Your task to perform on an android device: Search for sushi restaurants on Maps Image 0: 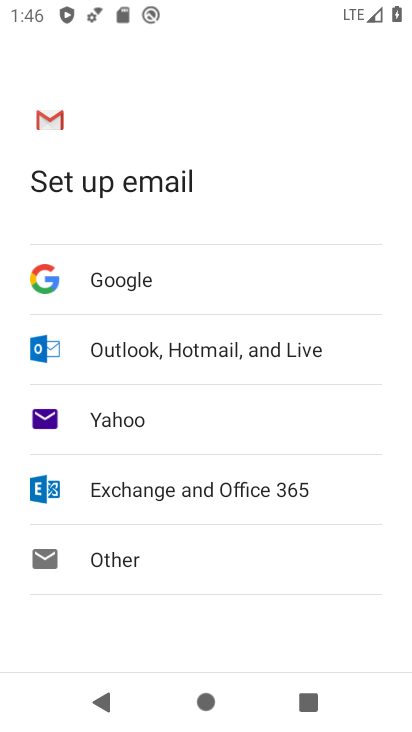
Step 0: press home button
Your task to perform on an android device: Search for sushi restaurants on Maps Image 1: 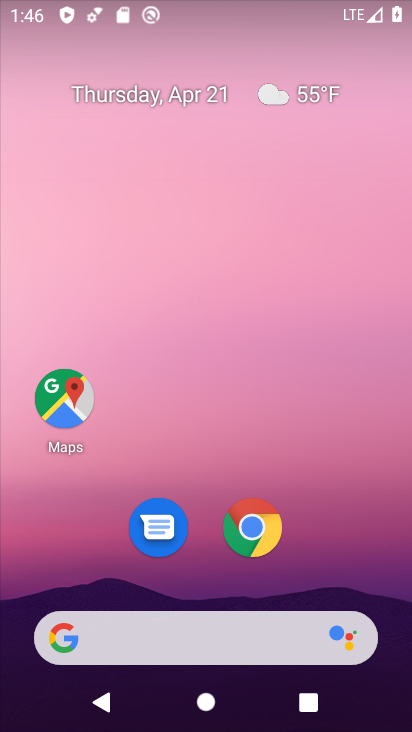
Step 1: drag from (344, 545) to (349, 150)
Your task to perform on an android device: Search for sushi restaurants on Maps Image 2: 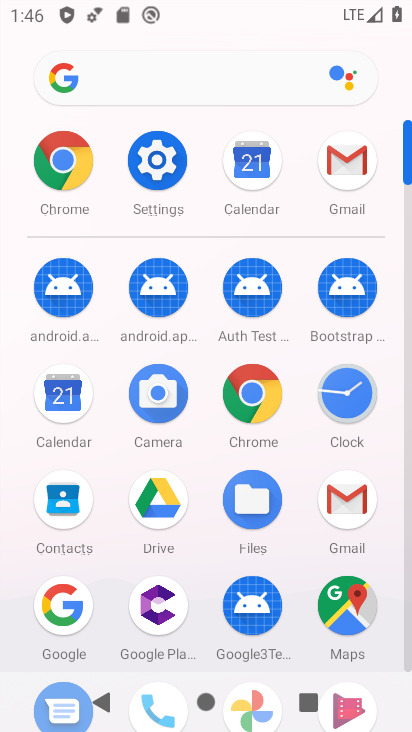
Step 2: drag from (201, 558) to (202, 150)
Your task to perform on an android device: Search for sushi restaurants on Maps Image 3: 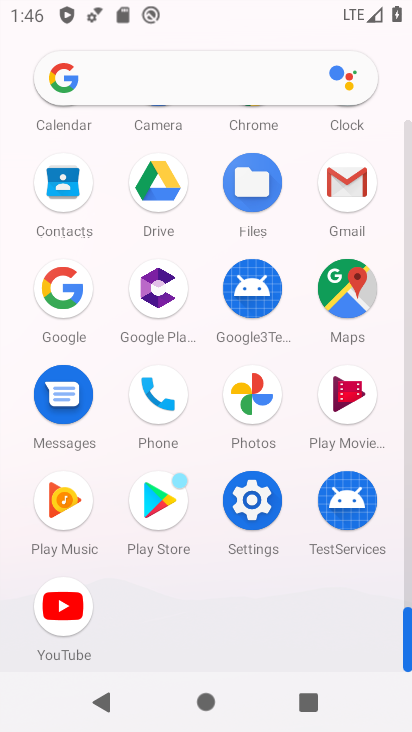
Step 3: click (345, 298)
Your task to perform on an android device: Search for sushi restaurants on Maps Image 4: 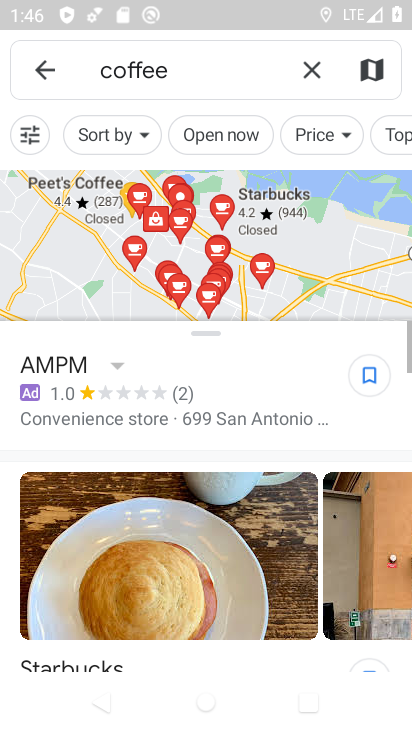
Step 4: click (199, 71)
Your task to perform on an android device: Search for sushi restaurants on Maps Image 5: 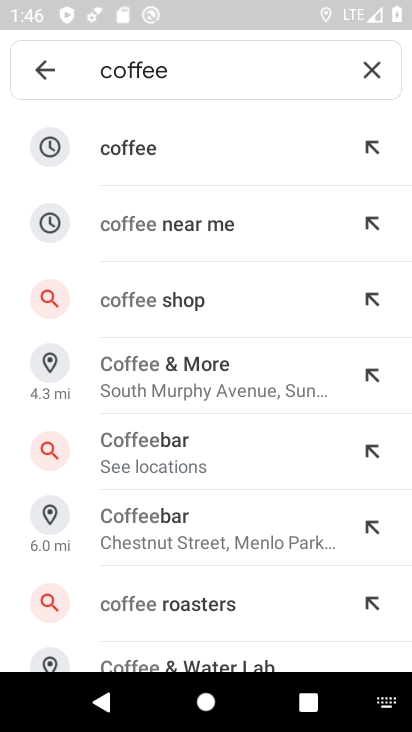
Step 5: click (374, 72)
Your task to perform on an android device: Search for sushi restaurants on Maps Image 6: 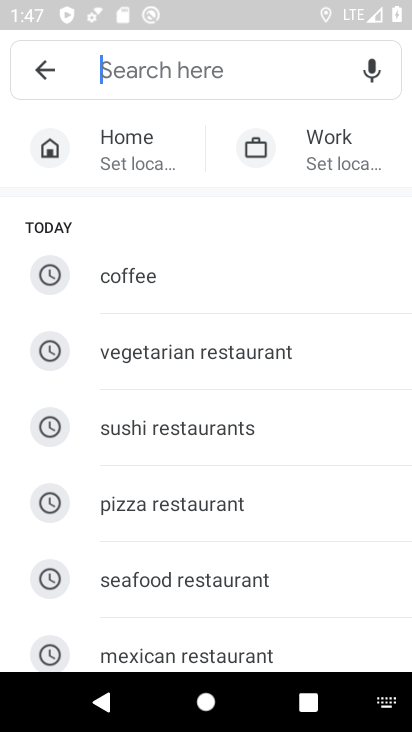
Step 6: type "sushi restaurants"
Your task to perform on an android device: Search for sushi restaurants on Maps Image 7: 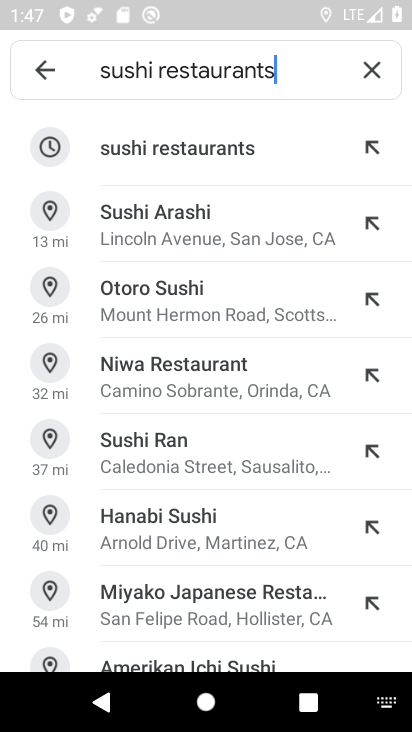
Step 7: click (235, 159)
Your task to perform on an android device: Search for sushi restaurants on Maps Image 8: 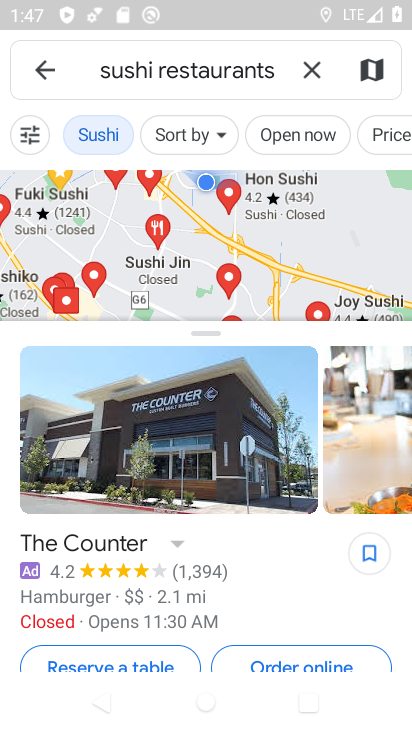
Step 8: task complete